Your task to perform on an android device: Is it going to rain tomorrow? Image 0: 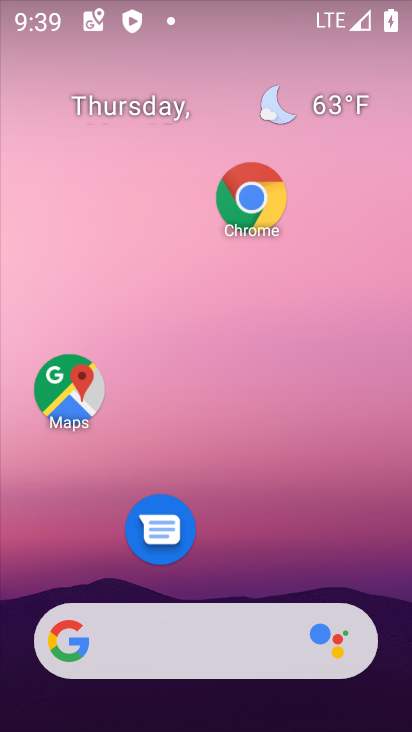
Step 0: drag from (235, 654) to (288, 182)
Your task to perform on an android device: Is it going to rain tomorrow? Image 1: 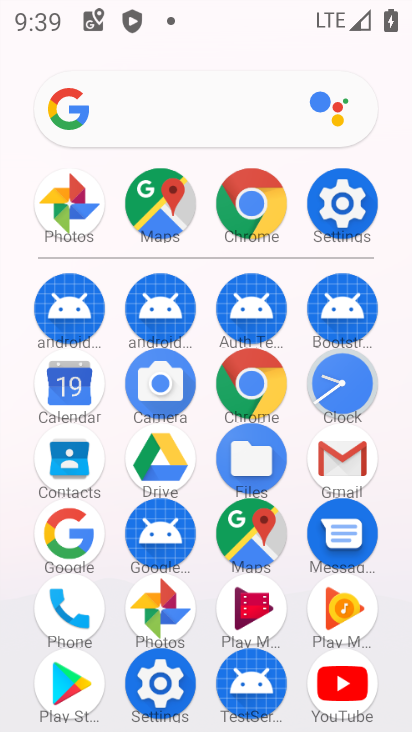
Step 1: click (65, 543)
Your task to perform on an android device: Is it going to rain tomorrow? Image 2: 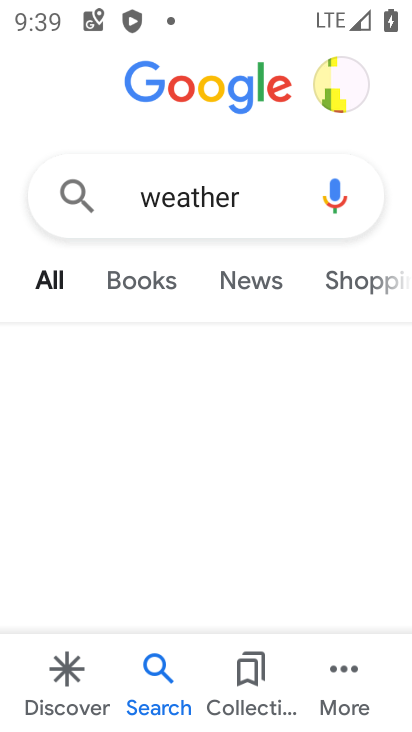
Step 2: click (256, 188)
Your task to perform on an android device: Is it going to rain tomorrow? Image 3: 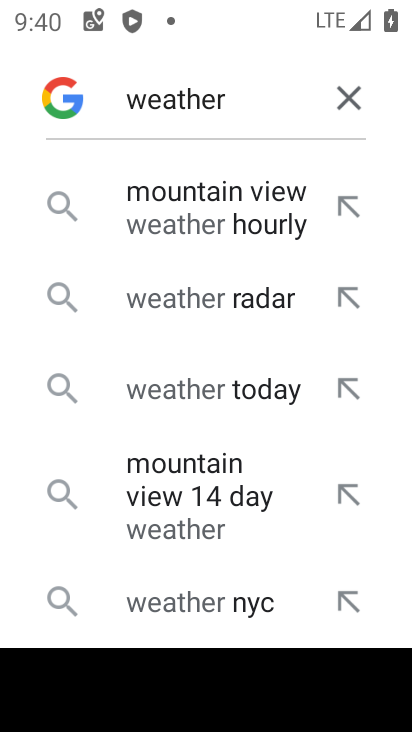
Step 3: press back button
Your task to perform on an android device: Is it going to rain tomorrow? Image 4: 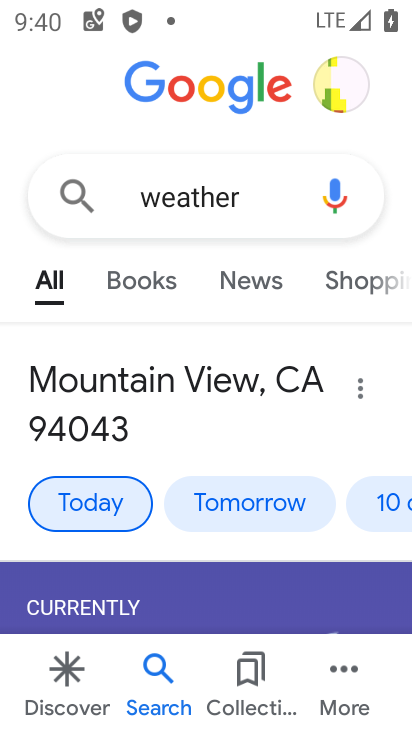
Step 4: click (272, 507)
Your task to perform on an android device: Is it going to rain tomorrow? Image 5: 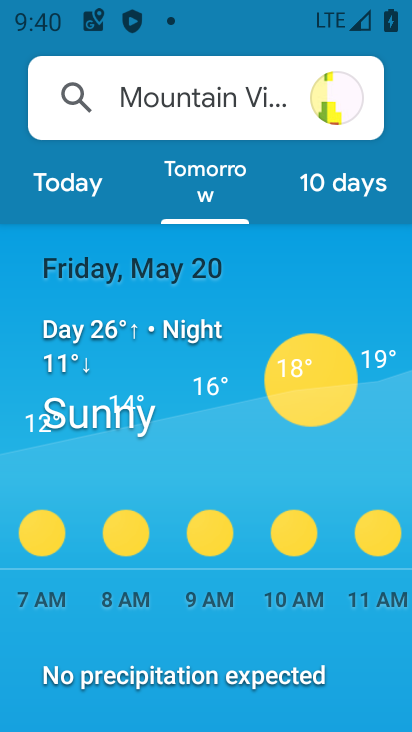
Step 5: task complete